Your task to perform on an android device: What's US dollar exchange rate against the Japanese Yen? Image 0: 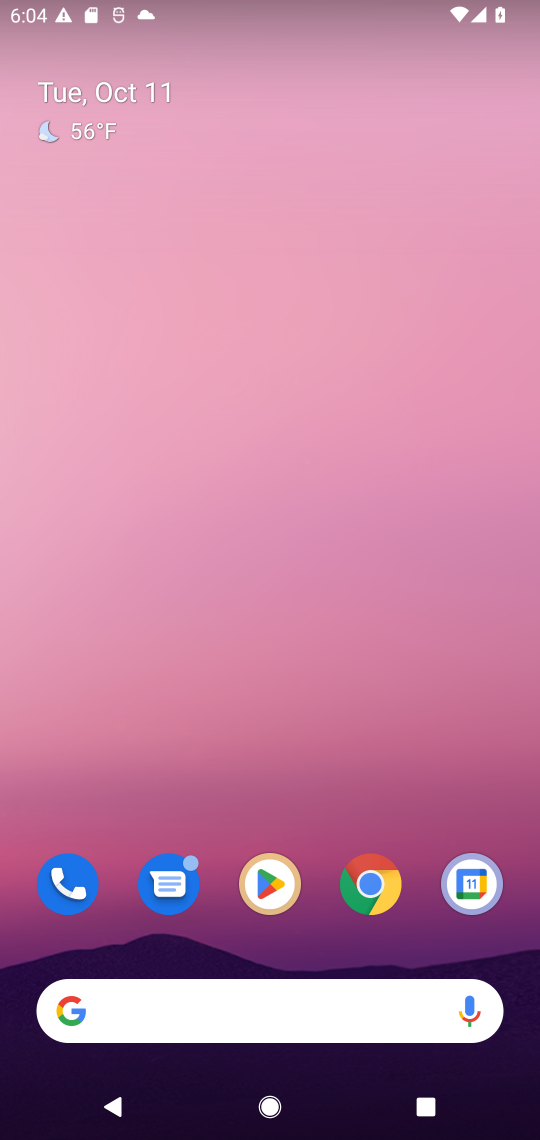
Step 0: drag from (322, 939) to (343, 84)
Your task to perform on an android device: What's US dollar exchange rate against the Japanese Yen? Image 1: 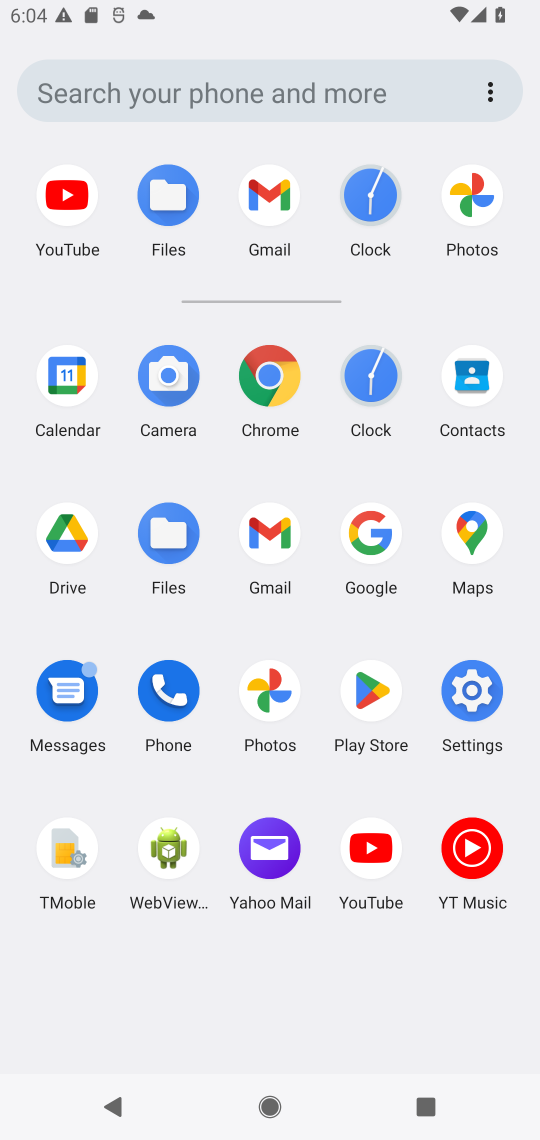
Step 1: click (275, 375)
Your task to perform on an android device: What's US dollar exchange rate against the Japanese Yen? Image 2: 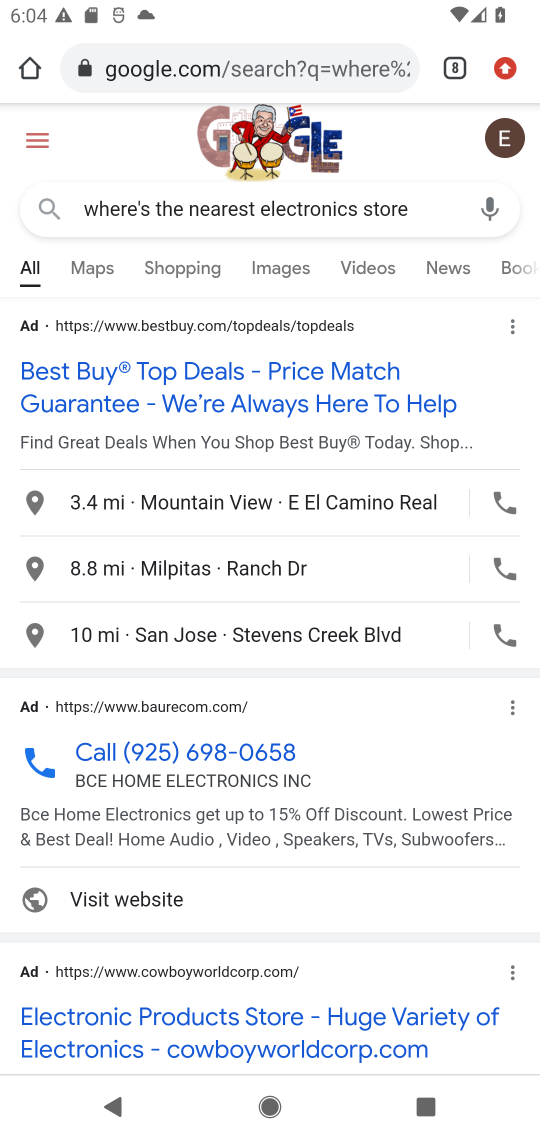
Step 2: click (435, 213)
Your task to perform on an android device: What's US dollar exchange rate against the Japanese Yen? Image 3: 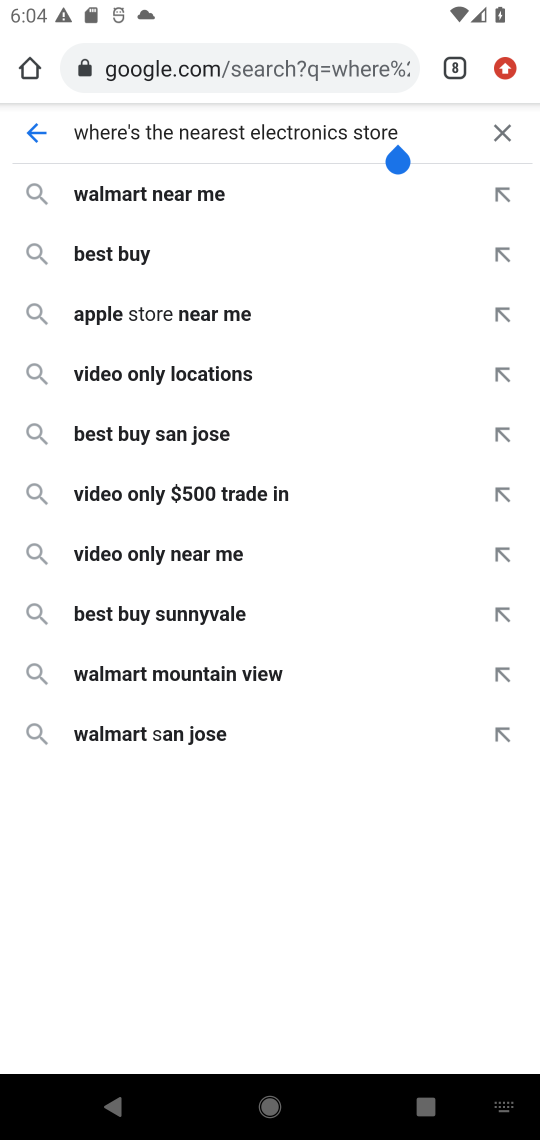
Step 3: click (500, 136)
Your task to perform on an android device: What's US dollar exchange rate against the Japanese Yen? Image 4: 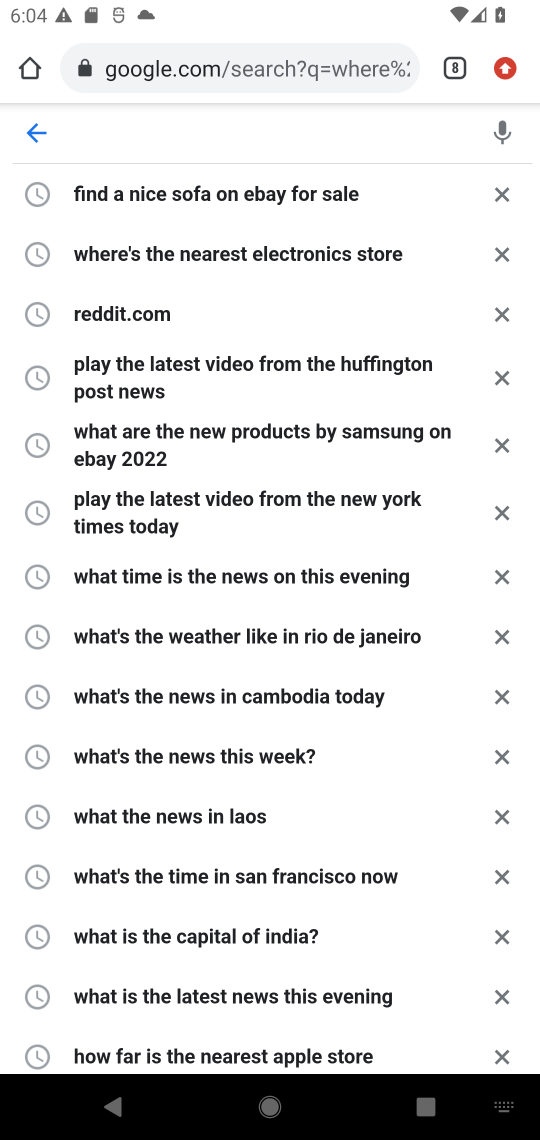
Step 4: type "What's US dollar exchange rate against the Japanese Yen?"
Your task to perform on an android device: What's US dollar exchange rate against the Japanese Yen? Image 5: 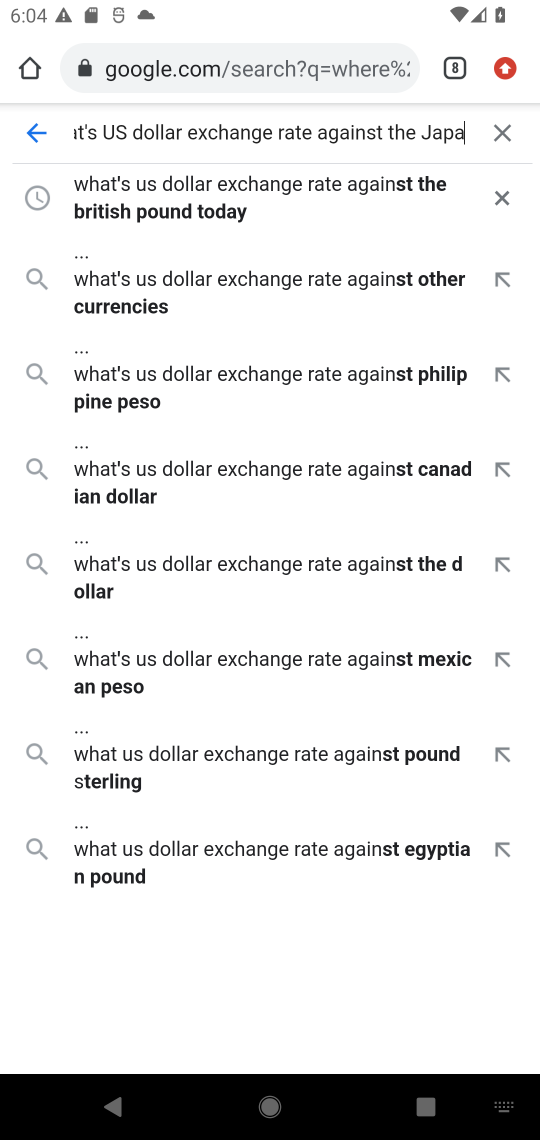
Step 5: type ""
Your task to perform on an android device: What's US dollar exchange rate against the Japanese Yen? Image 6: 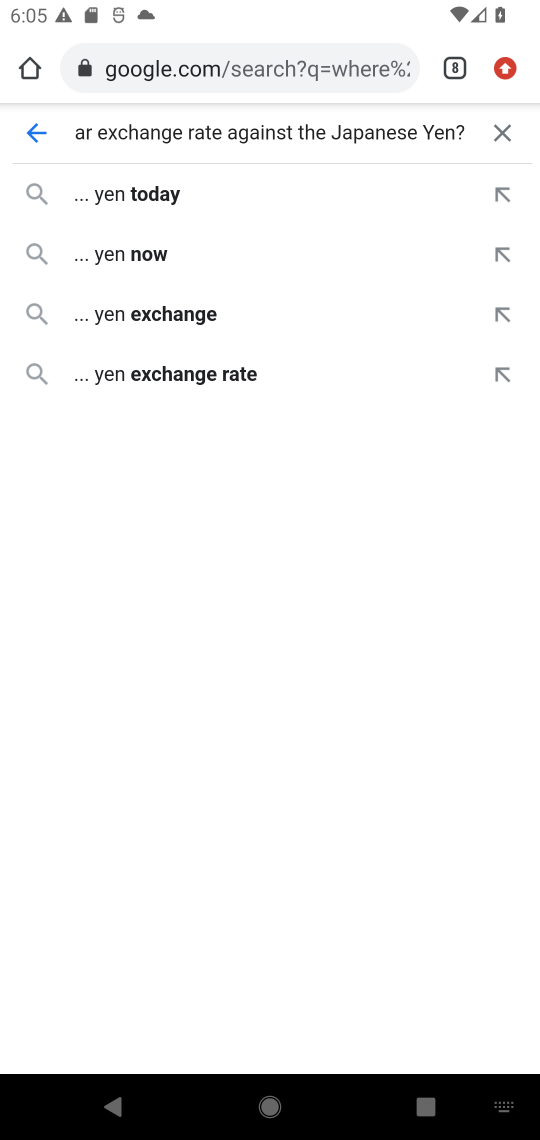
Step 6: click (140, 253)
Your task to perform on an android device: What's US dollar exchange rate against the Japanese Yen? Image 7: 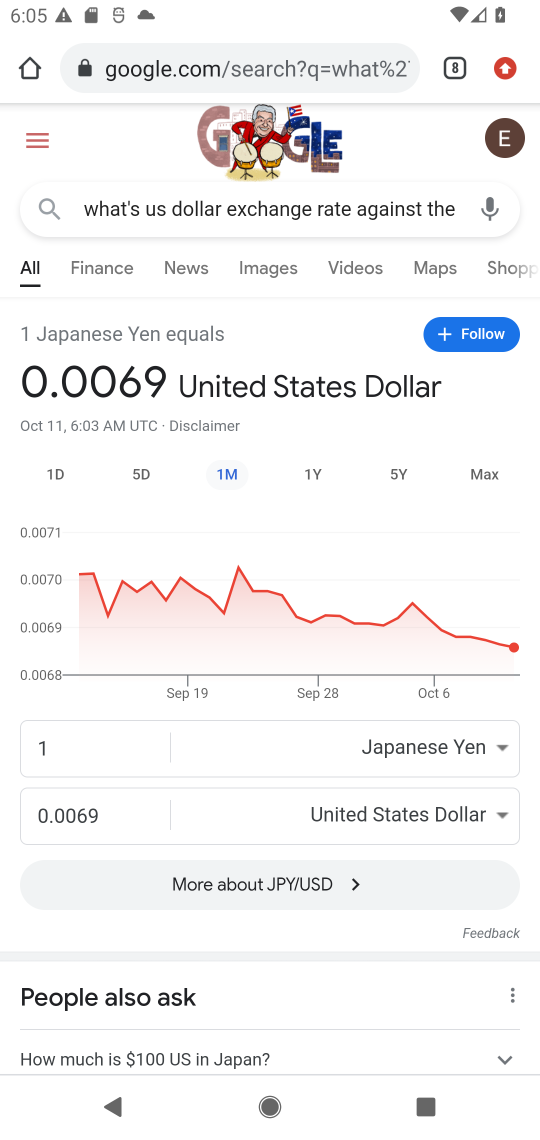
Step 7: task complete